Your task to perform on an android device: What's the US dollar exchange rate against the Australian Dollar? Image 0: 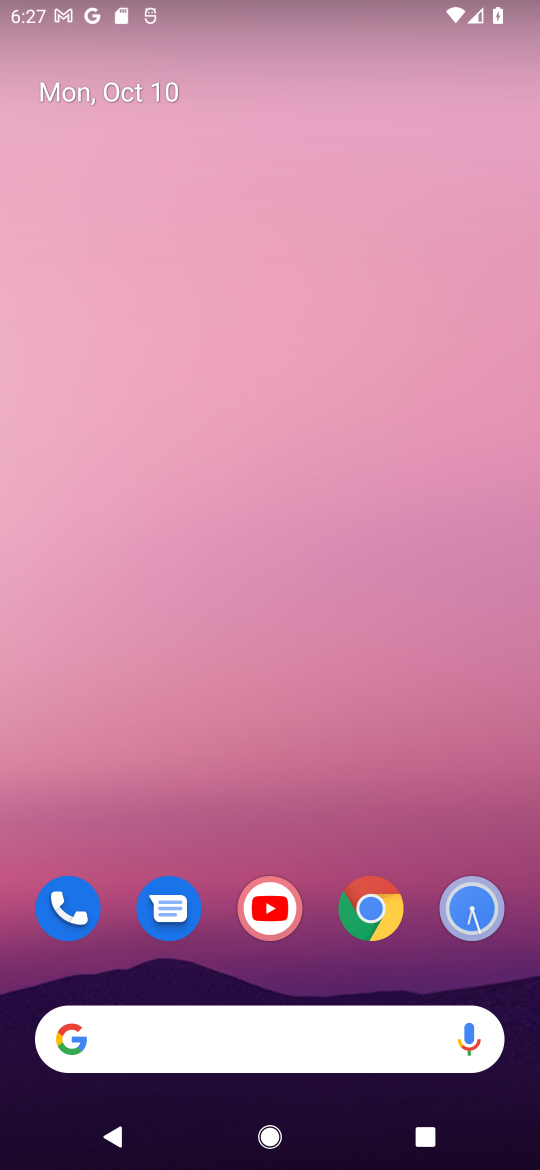
Step 0: drag from (340, 975) to (206, 219)
Your task to perform on an android device: What's the US dollar exchange rate against the Australian Dollar? Image 1: 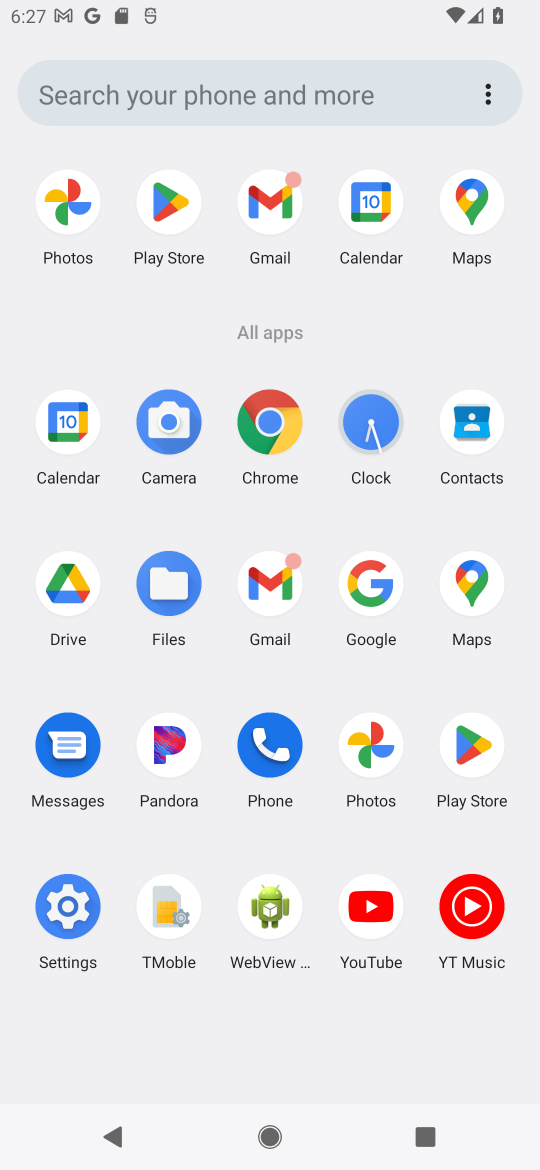
Step 1: click (273, 427)
Your task to perform on an android device: What's the US dollar exchange rate against the Australian Dollar? Image 2: 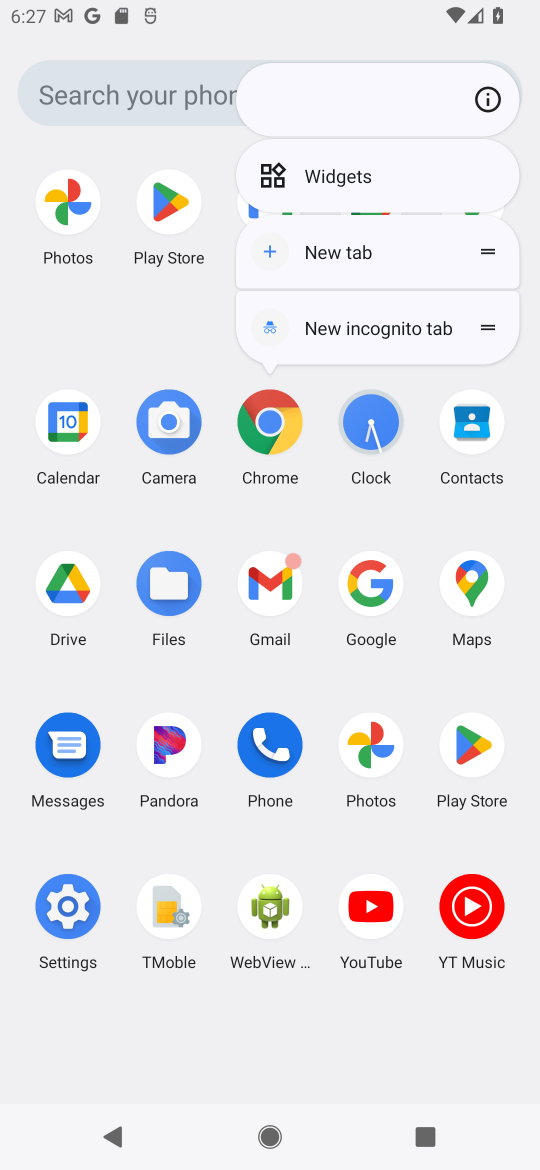
Step 2: click (273, 427)
Your task to perform on an android device: What's the US dollar exchange rate against the Australian Dollar? Image 3: 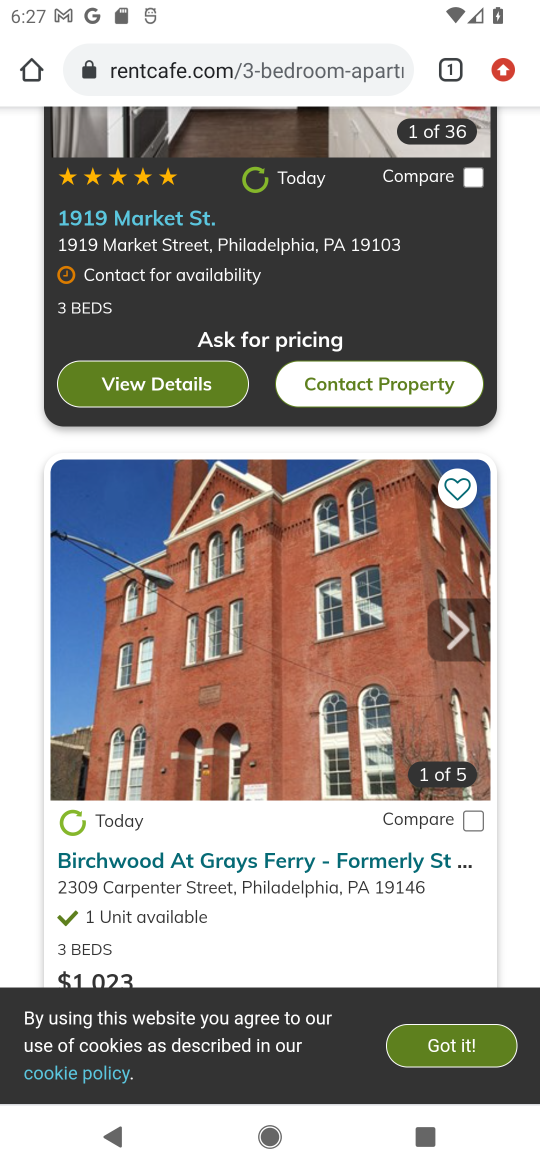
Step 3: click (189, 73)
Your task to perform on an android device: What's the US dollar exchange rate against the Australian Dollar? Image 4: 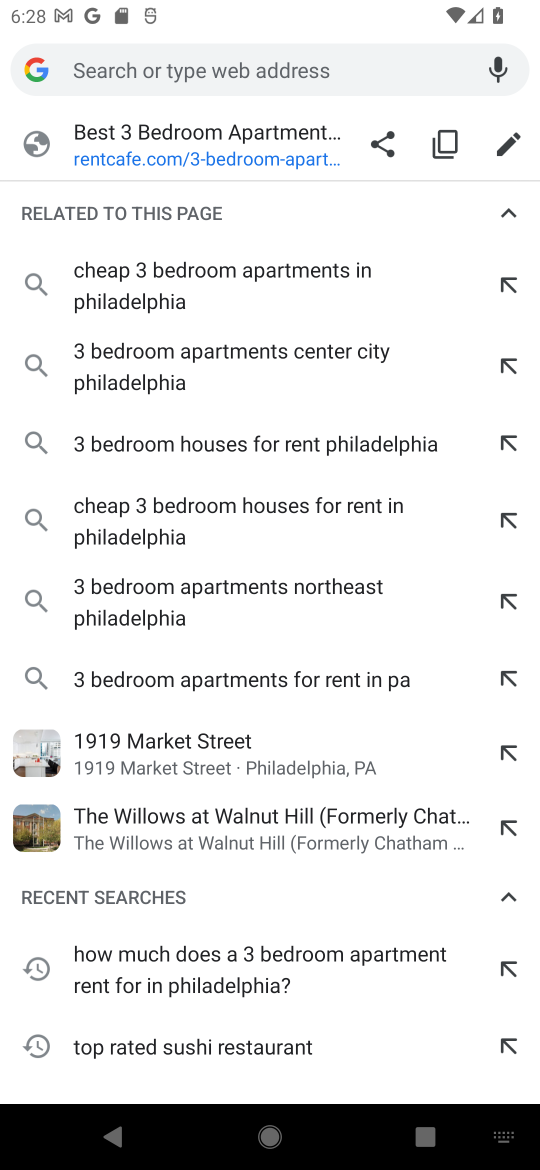
Step 4: type "What's the US dollar Exchange rate against the Australian Dolllar?"
Your task to perform on an android device: What's the US dollar exchange rate against the Australian Dollar? Image 5: 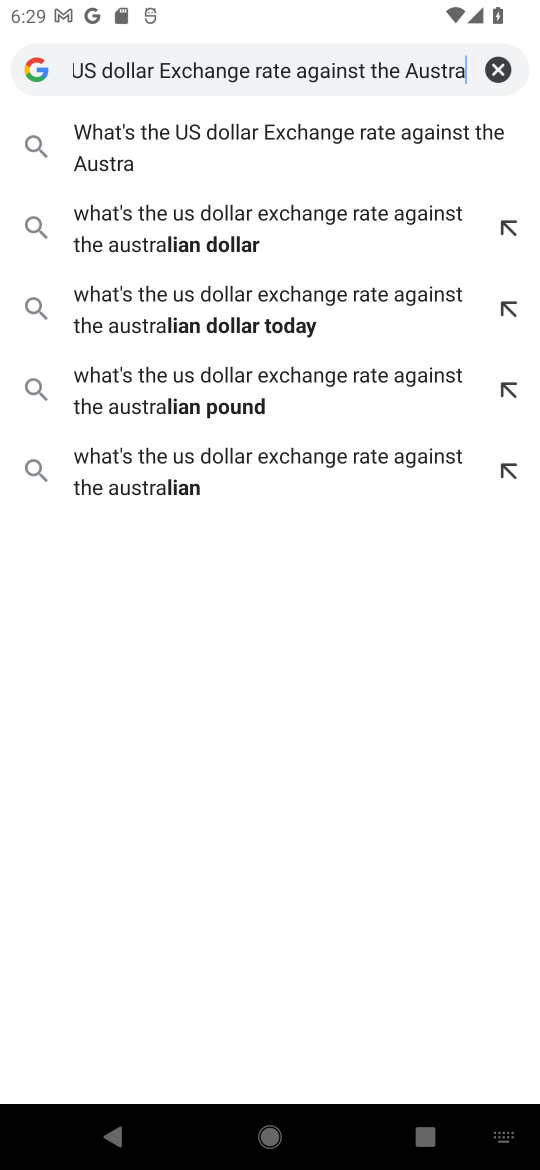
Step 5: type "lian Dollar?"
Your task to perform on an android device: What's the US dollar exchange rate against the Australian Dollar? Image 6: 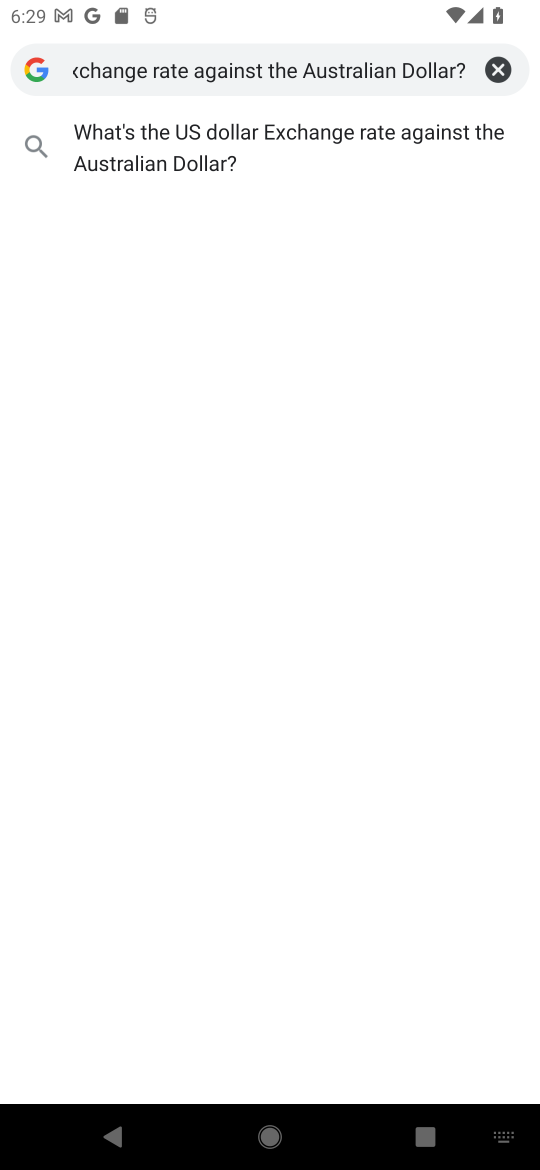
Step 6: press enter
Your task to perform on an android device: What's the US dollar exchange rate against the Australian Dollar? Image 7: 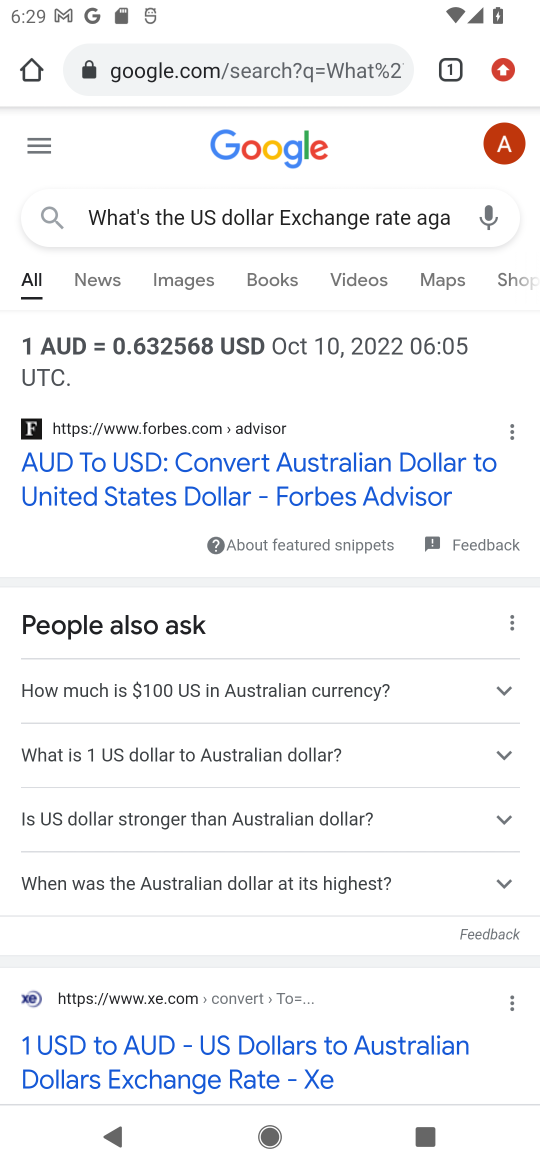
Step 7: task complete